Your task to perform on an android device: open the mobile data screen to see how much data has been used Image 0: 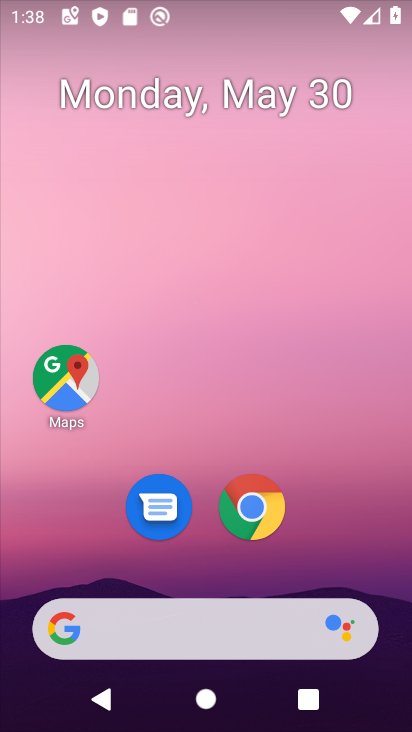
Step 0: drag from (282, 550) to (237, 115)
Your task to perform on an android device: open the mobile data screen to see how much data has been used Image 1: 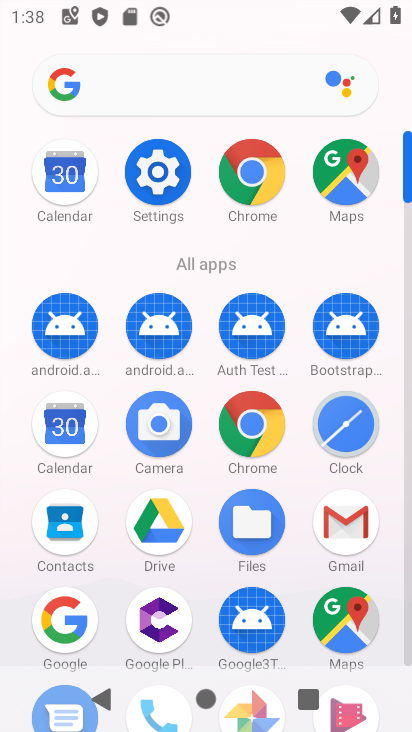
Step 1: click (159, 176)
Your task to perform on an android device: open the mobile data screen to see how much data has been used Image 2: 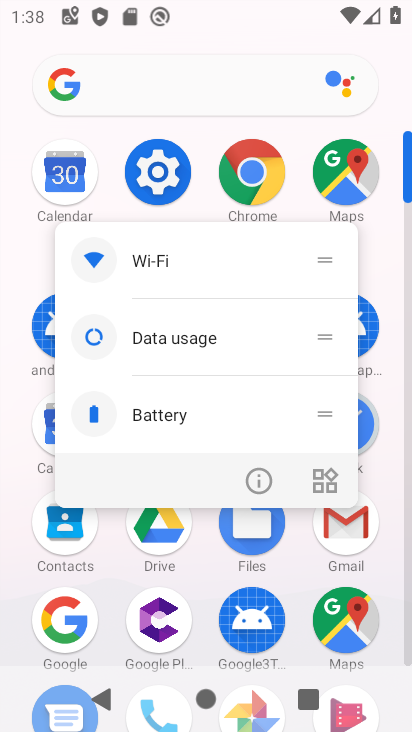
Step 2: click (159, 179)
Your task to perform on an android device: open the mobile data screen to see how much data has been used Image 3: 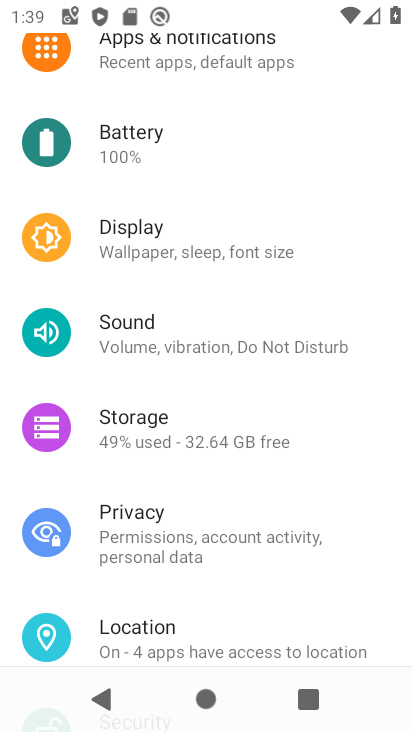
Step 3: drag from (112, 221) to (107, 495)
Your task to perform on an android device: open the mobile data screen to see how much data has been used Image 4: 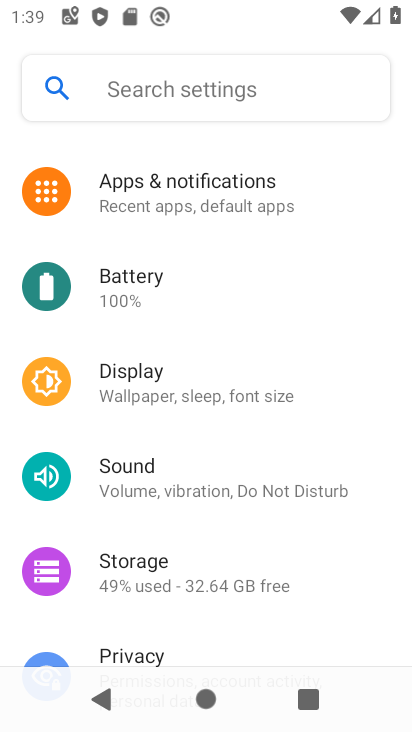
Step 4: drag from (142, 595) to (164, 167)
Your task to perform on an android device: open the mobile data screen to see how much data has been used Image 5: 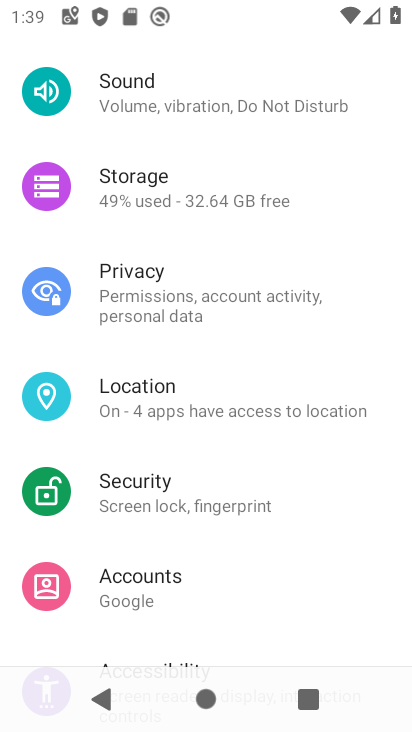
Step 5: drag from (221, 568) to (233, 201)
Your task to perform on an android device: open the mobile data screen to see how much data has been used Image 6: 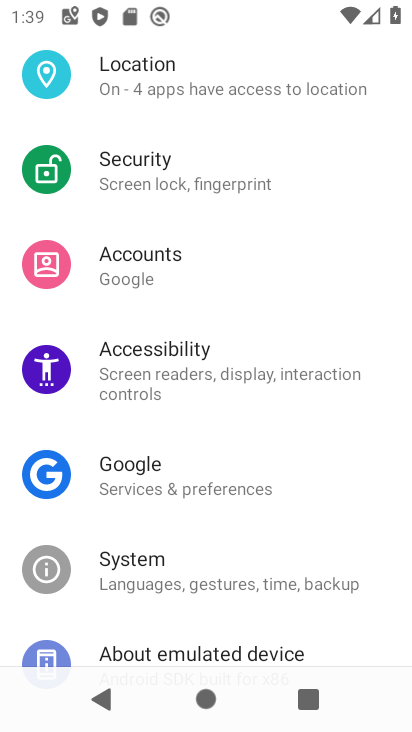
Step 6: drag from (172, 633) to (165, 297)
Your task to perform on an android device: open the mobile data screen to see how much data has been used Image 7: 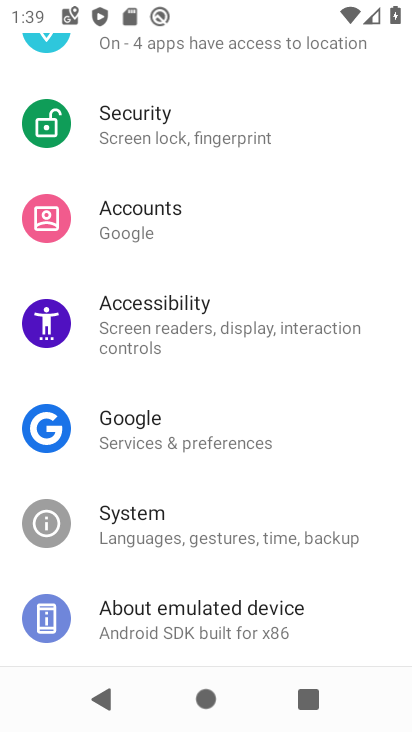
Step 7: drag from (150, 233) to (186, 713)
Your task to perform on an android device: open the mobile data screen to see how much data has been used Image 8: 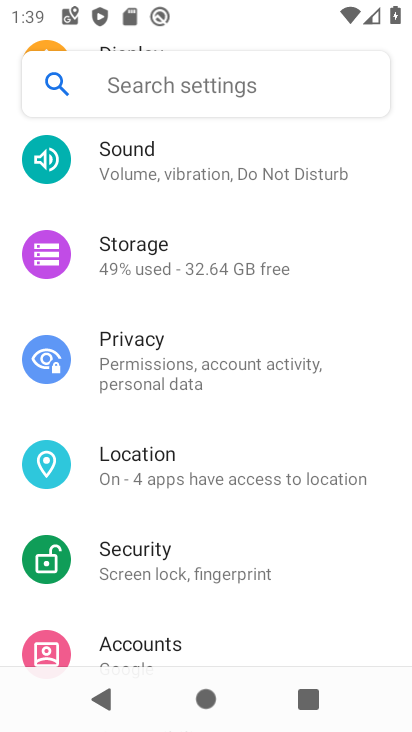
Step 8: drag from (187, 310) to (181, 631)
Your task to perform on an android device: open the mobile data screen to see how much data has been used Image 9: 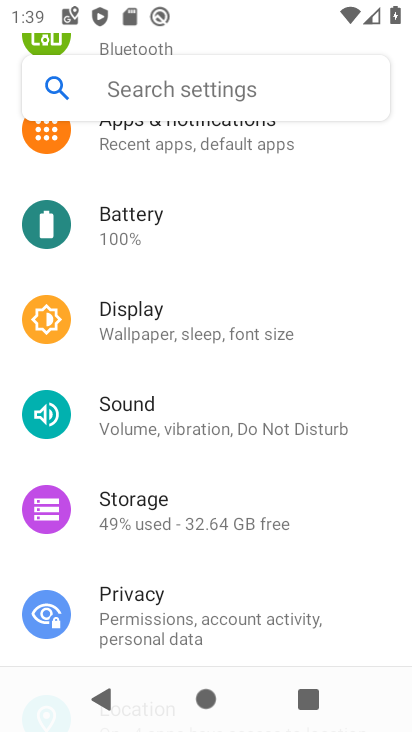
Step 9: drag from (198, 213) to (160, 615)
Your task to perform on an android device: open the mobile data screen to see how much data has been used Image 10: 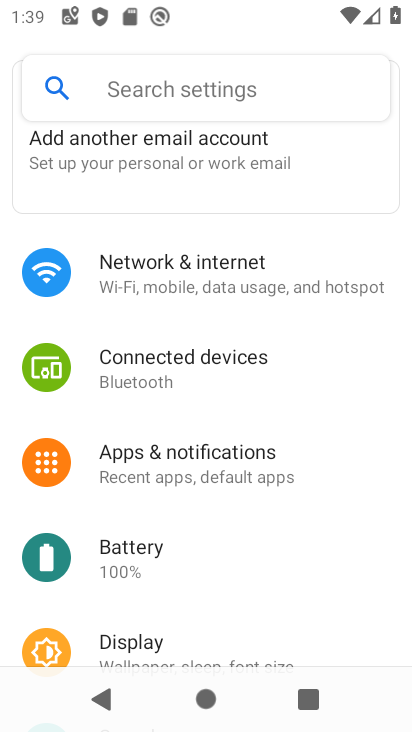
Step 10: click (162, 286)
Your task to perform on an android device: open the mobile data screen to see how much data has been used Image 11: 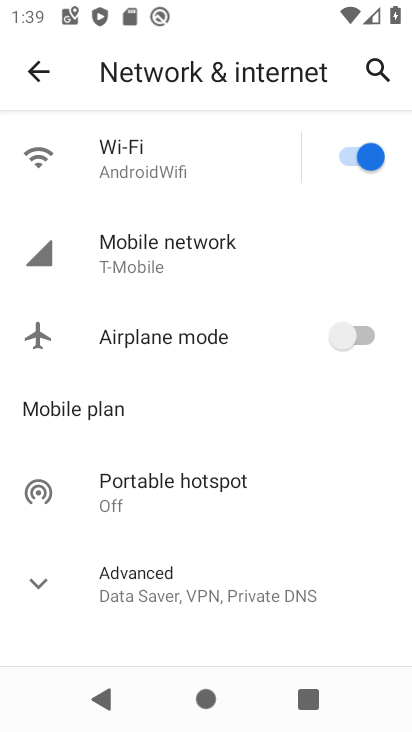
Step 11: click (166, 266)
Your task to perform on an android device: open the mobile data screen to see how much data has been used Image 12: 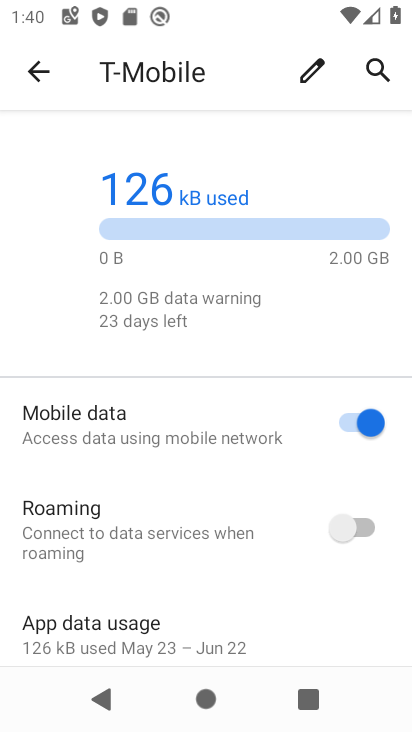
Step 12: task complete